Your task to perform on an android device: change your default location settings in chrome Image 0: 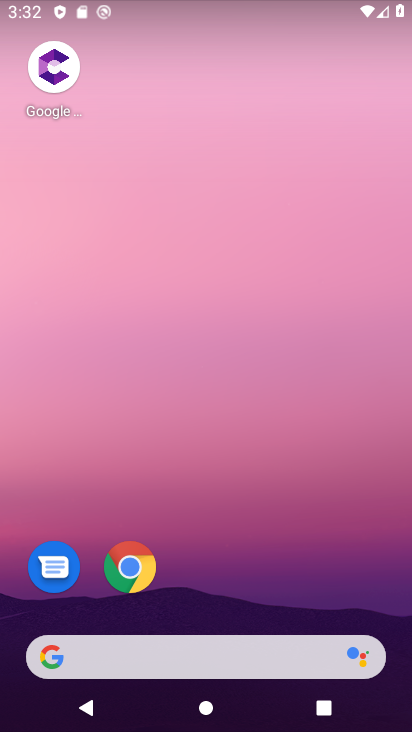
Step 0: press home button
Your task to perform on an android device: change your default location settings in chrome Image 1: 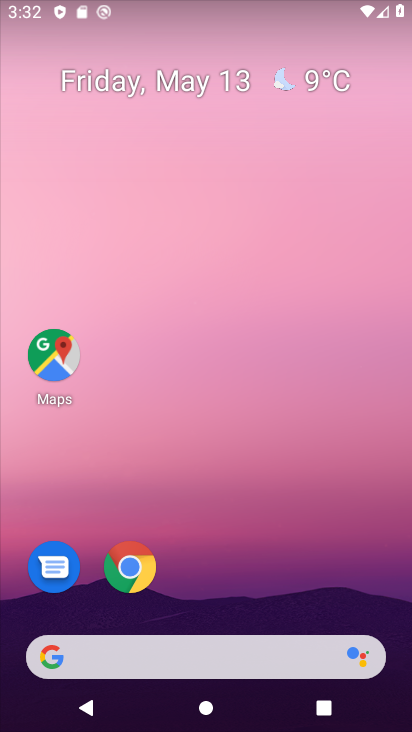
Step 1: click (232, 577)
Your task to perform on an android device: change your default location settings in chrome Image 2: 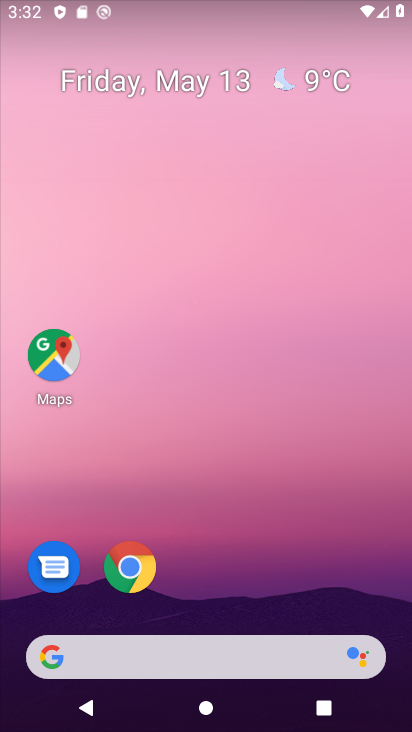
Step 2: click (128, 571)
Your task to perform on an android device: change your default location settings in chrome Image 3: 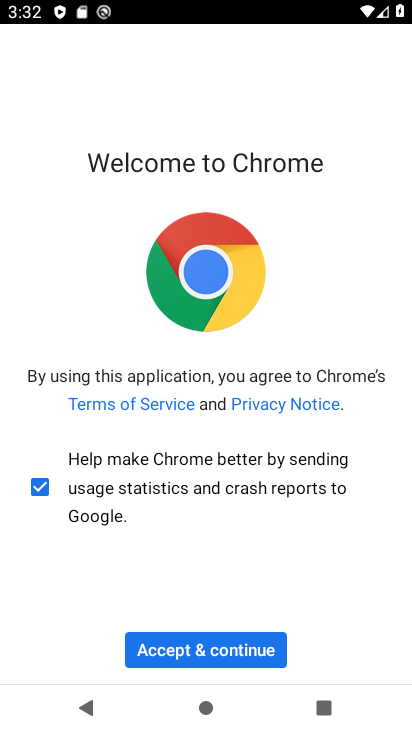
Step 3: click (239, 653)
Your task to perform on an android device: change your default location settings in chrome Image 4: 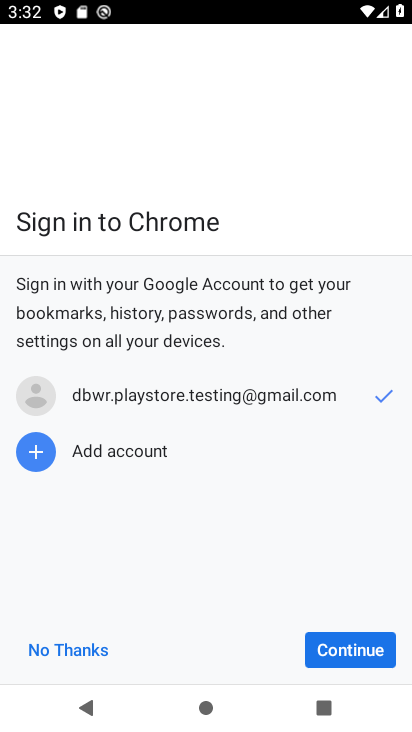
Step 4: click (330, 648)
Your task to perform on an android device: change your default location settings in chrome Image 5: 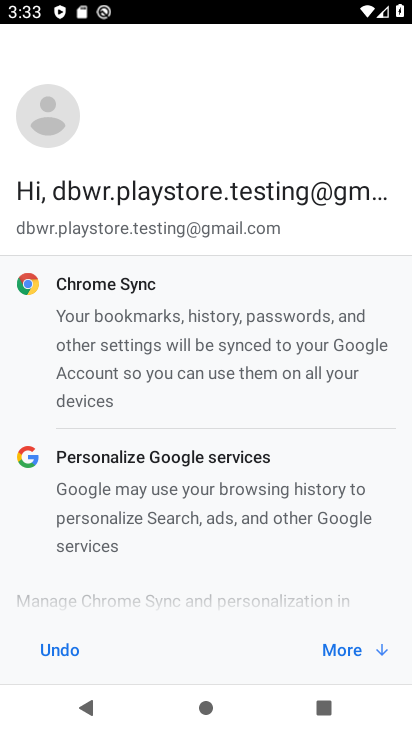
Step 5: click (330, 648)
Your task to perform on an android device: change your default location settings in chrome Image 6: 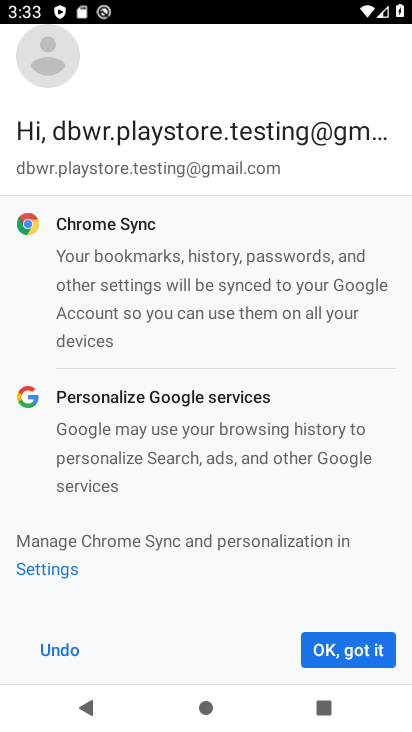
Step 6: click (330, 648)
Your task to perform on an android device: change your default location settings in chrome Image 7: 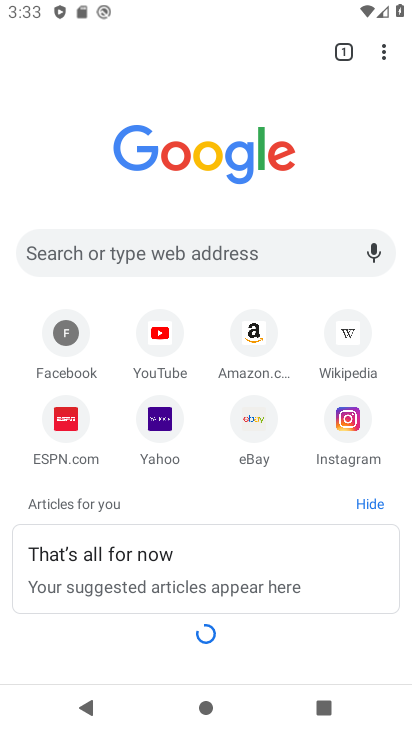
Step 7: click (375, 52)
Your task to perform on an android device: change your default location settings in chrome Image 8: 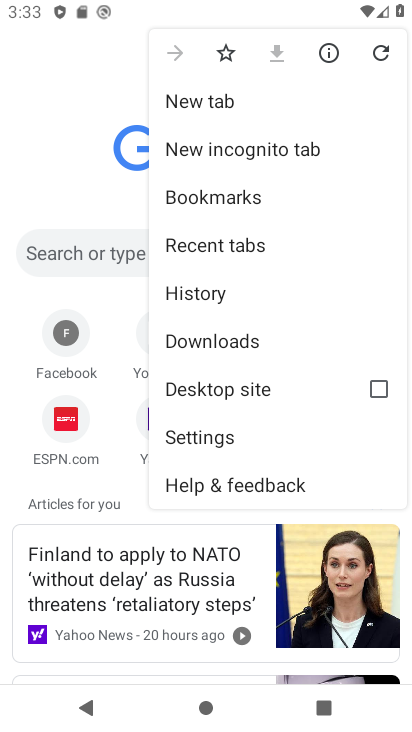
Step 8: click (190, 440)
Your task to perform on an android device: change your default location settings in chrome Image 9: 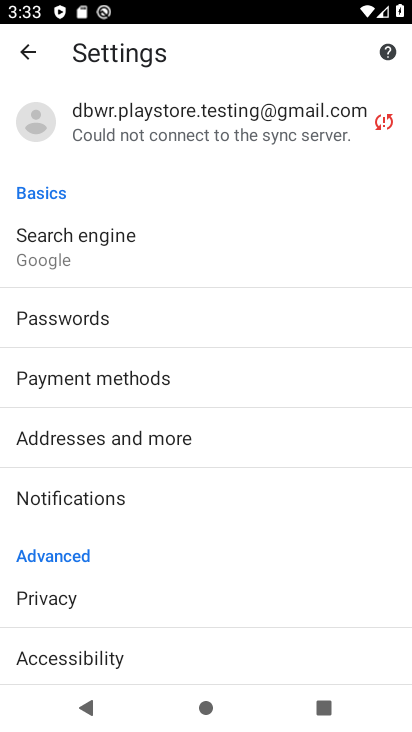
Step 9: drag from (212, 507) to (216, 278)
Your task to perform on an android device: change your default location settings in chrome Image 10: 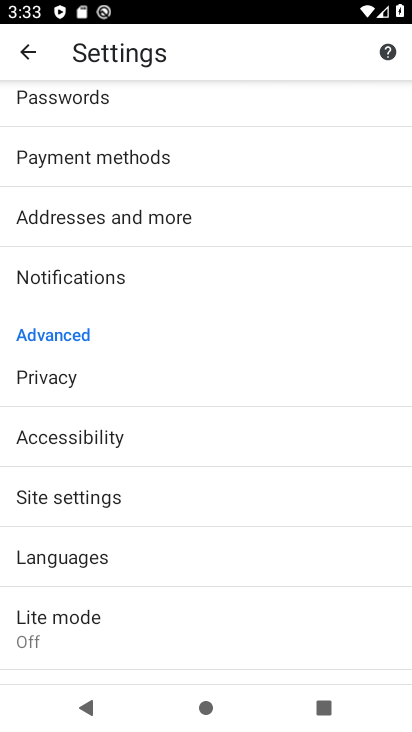
Step 10: drag from (167, 301) to (202, 501)
Your task to perform on an android device: change your default location settings in chrome Image 11: 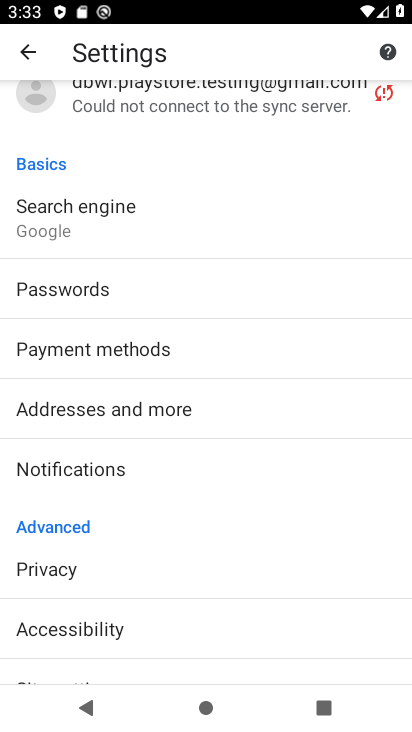
Step 11: click (69, 233)
Your task to perform on an android device: change your default location settings in chrome Image 12: 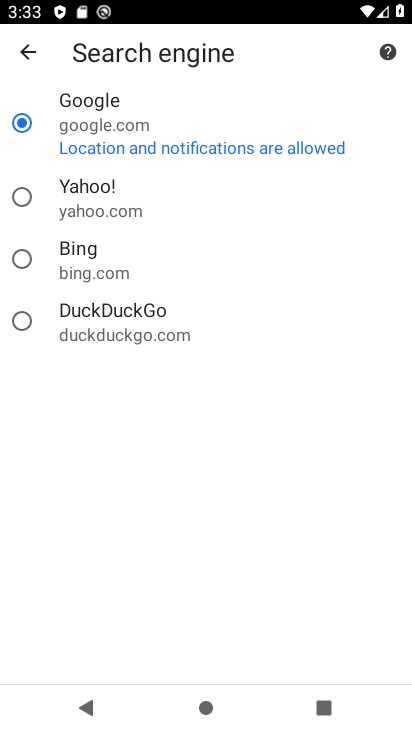
Step 12: click (66, 182)
Your task to perform on an android device: change your default location settings in chrome Image 13: 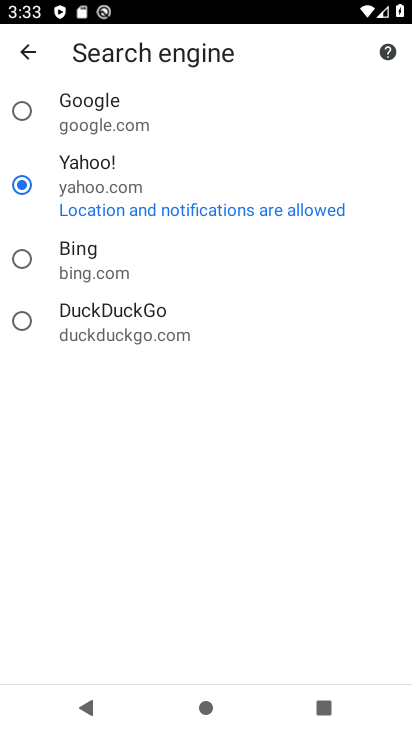
Step 13: task complete